Your task to perform on an android device: set default search engine in the chrome app Image 0: 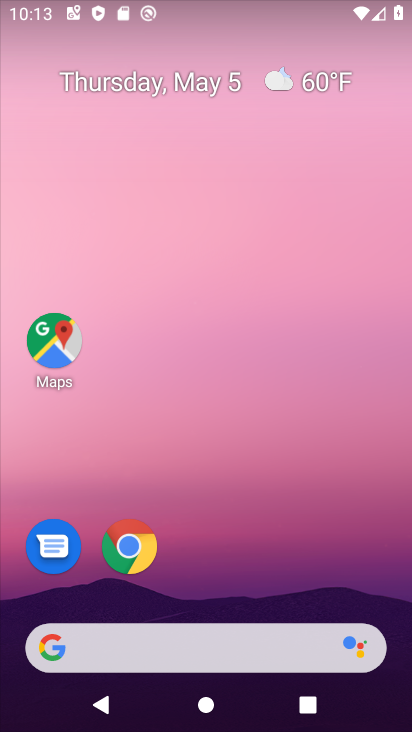
Step 0: click (133, 552)
Your task to perform on an android device: set default search engine in the chrome app Image 1: 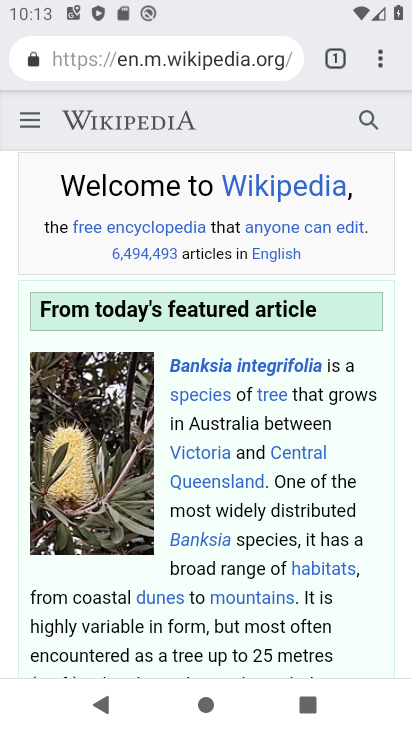
Step 1: click (366, 56)
Your task to perform on an android device: set default search engine in the chrome app Image 2: 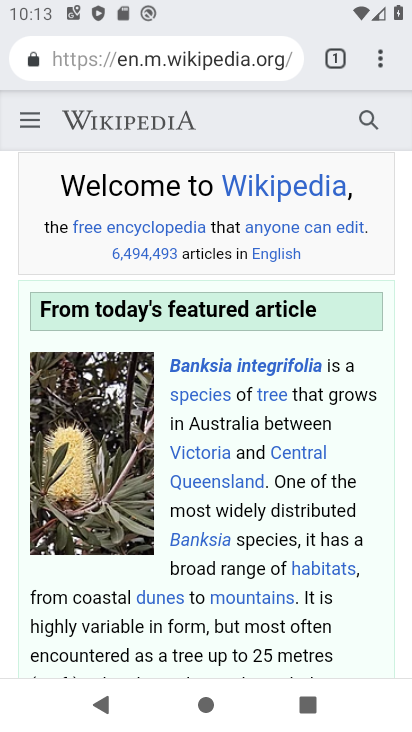
Step 2: click (370, 58)
Your task to perform on an android device: set default search engine in the chrome app Image 3: 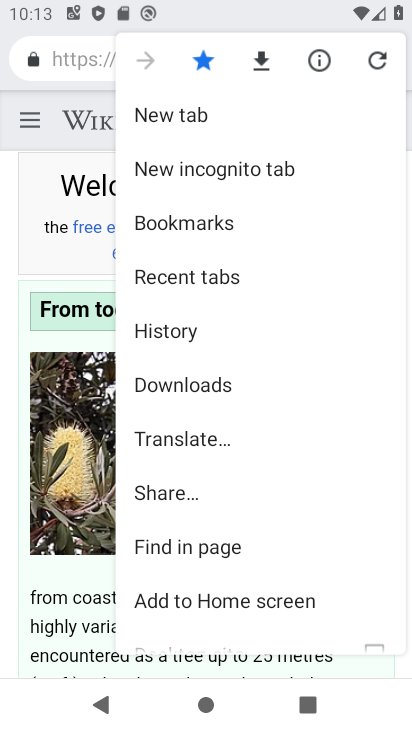
Step 3: drag from (241, 616) to (242, 382)
Your task to perform on an android device: set default search engine in the chrome app Image 4: 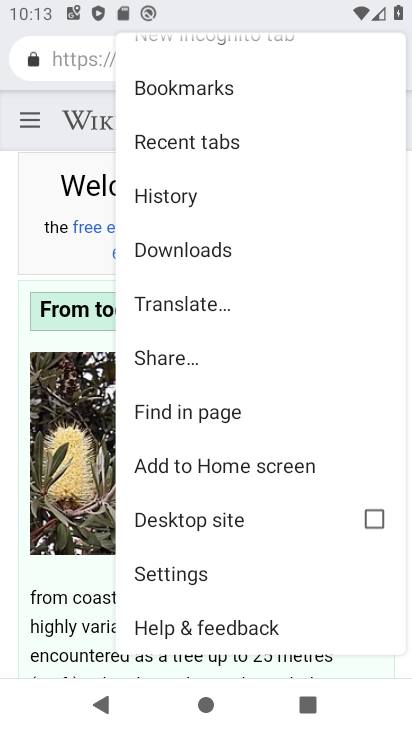
Step 4: click (172, 577)
Your task to perform on an android device: set default search engine in the chrome app Image 5: 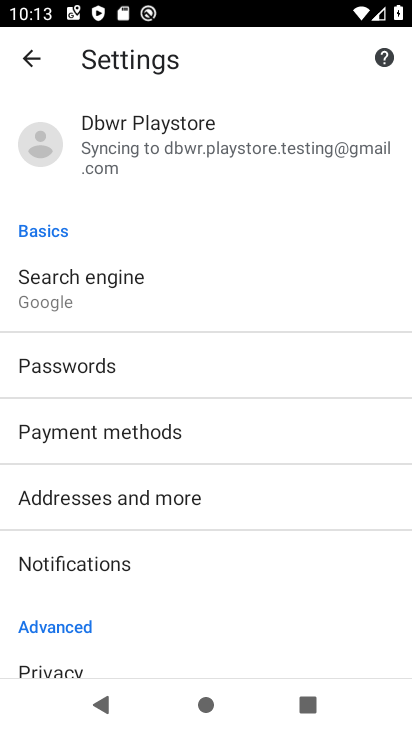
Step 5: click (68, 281)
Your task to perform on an android device: set default search engine in the chrome app Image 6: 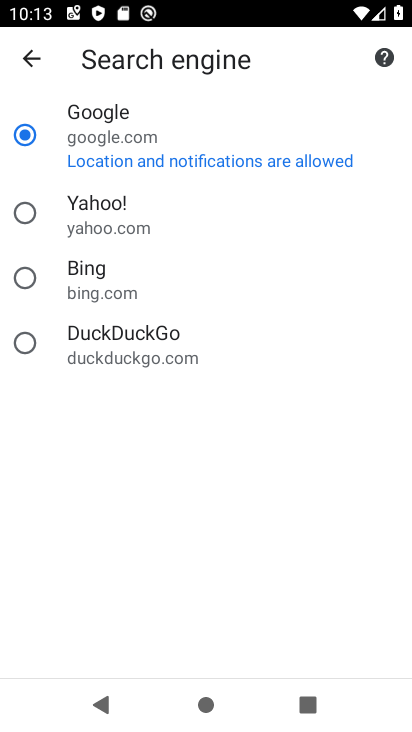
Step 6: click (117, 202)
Your task to perform on an android device: set default search engine in the chrome app Image 7: 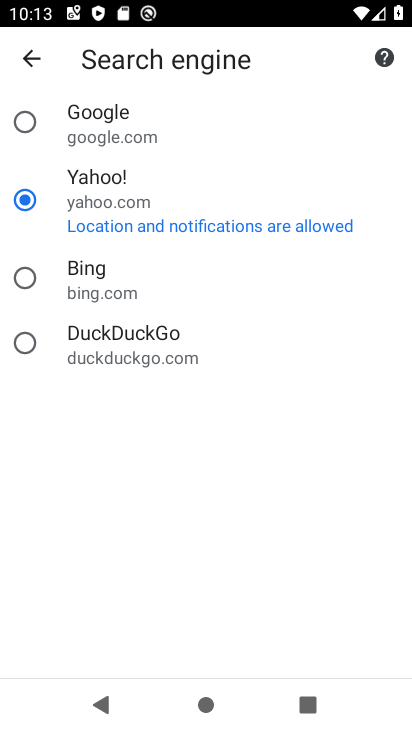
Step 7: task complete